Your task to perform on an android device: Open Youtube and go to "Your channel" Image 0: 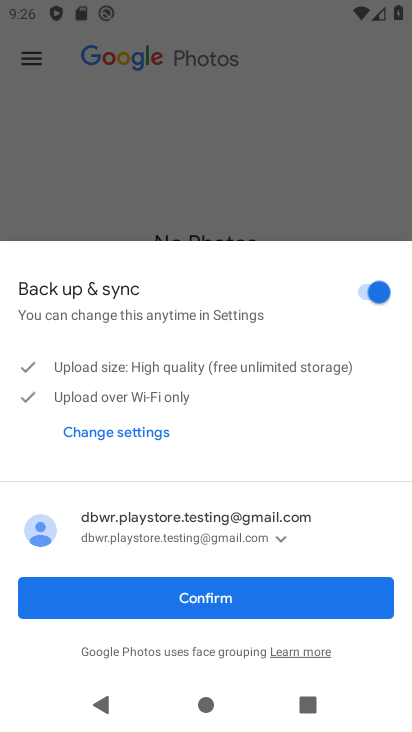
Step 0: press home button
Your task to perform on an android device: Open Youtube and go to "Your channel" Image 1: 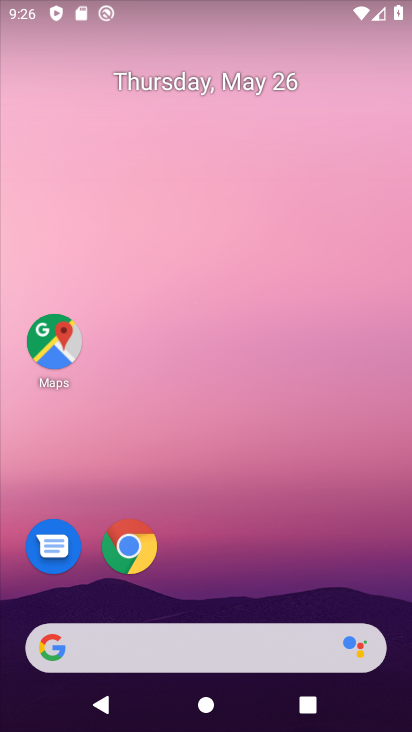
Step 1: click (333, 176)
Your task to perform on an android device: Open Youtube and go to "Your channel" Image 2: 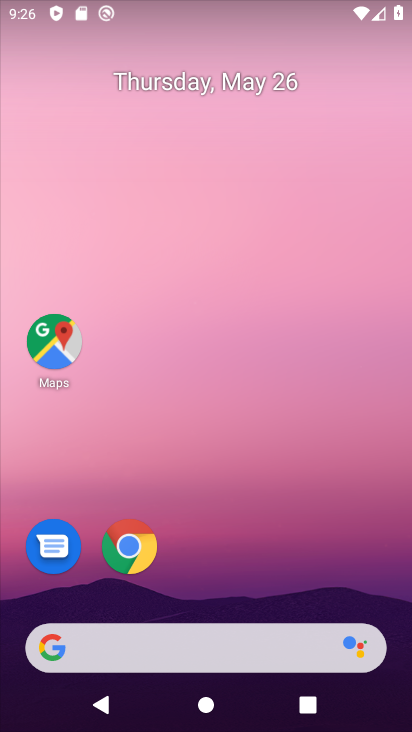
Step 2: drag from (369, 584) to (310, 91)
Your task to perform on an android device: Open Youtube and go to "Your channel" Image 3: 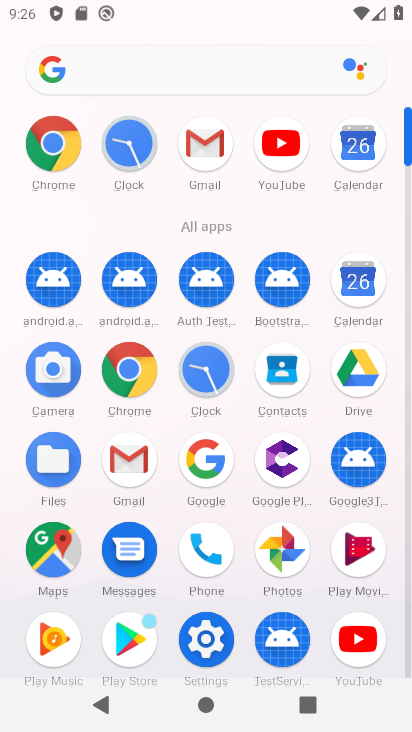
Step 3: click (353, 643)
Your task to perform on an android device: Open Youtube and go to "Your channel" Image 4: 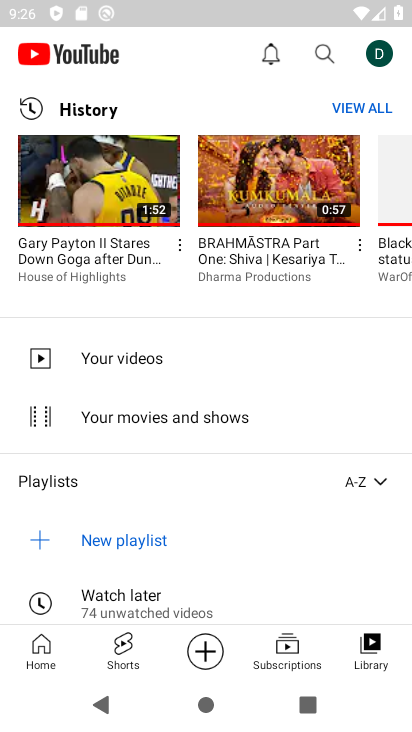
Step 4: click (385, 68)
Your task to perform on an android device: Open Youtube and go to "Your channel" Image 5: 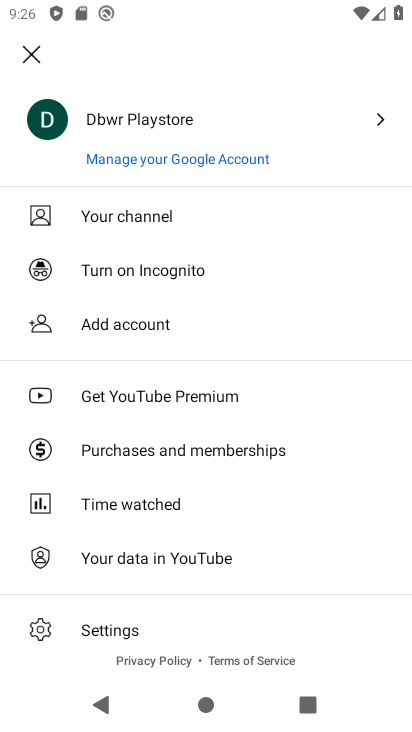
Step 5: click (147, 207)
Your task to perform on an android device: Open Youtube and go to "Your channel" Image 6: 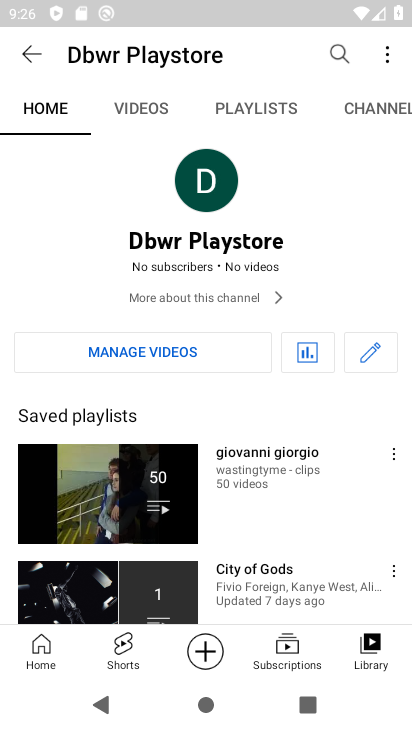
Step 6: task complete